Your task to perform on an android device: Look up the best rated wireless earbuds on Ali Express Image 0: 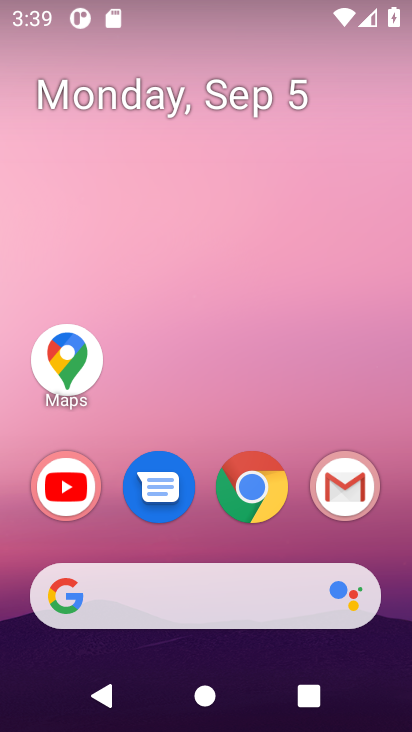
Step 0: click (267, 488)
Your task to perform on an android device: Look up the best rated wireless earbuds on Ali Express Image 1: 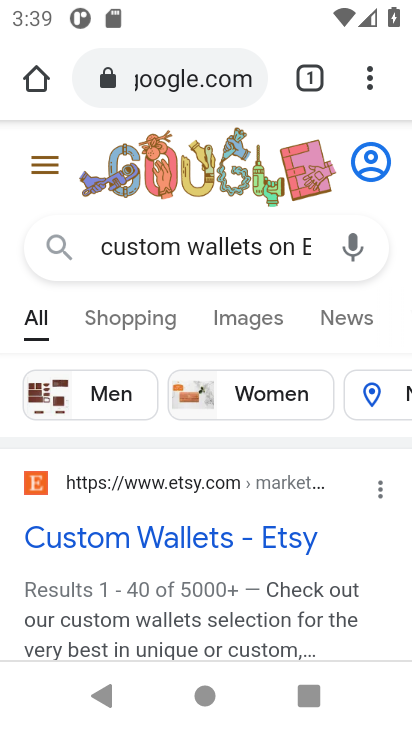
Step 1: click (188, 82)
Your task to perform on an android device: Look up the best rated wireless earbuds on Ali Express Image 2: 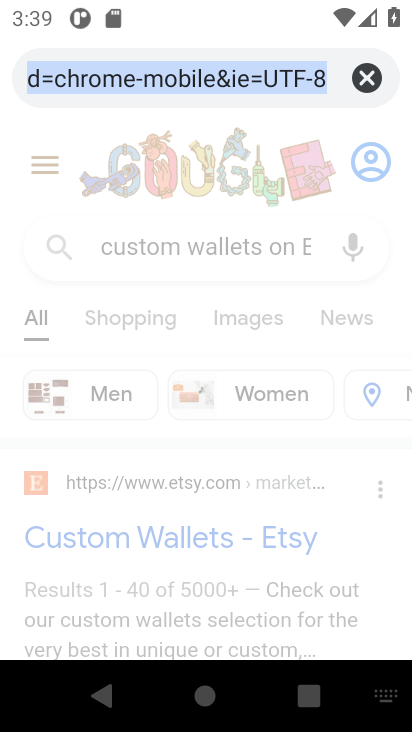
Step 2: click (365, 85)
Your task to perform on an android device: Look up the best rated wireless earbuds on Ali Express Image 3: 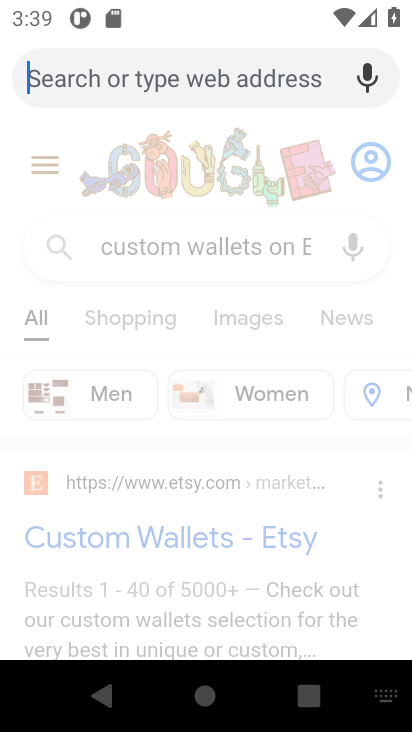
Step 3: type "the best rated wireless earbuds on Ali Express"
Your task to perform on an android device: Look up the best rated wireless earbuds on Ali Express Image 4: 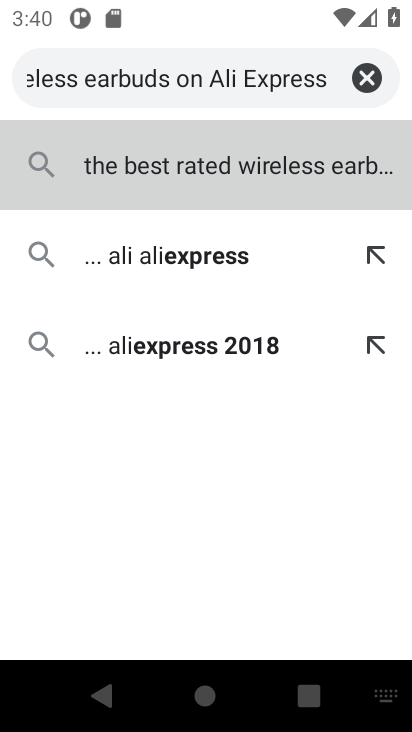
Step 4: click (206, 171)
Your task to perform on an android device: Look up the best rated wireless earbuds on Ali Express Image 5: 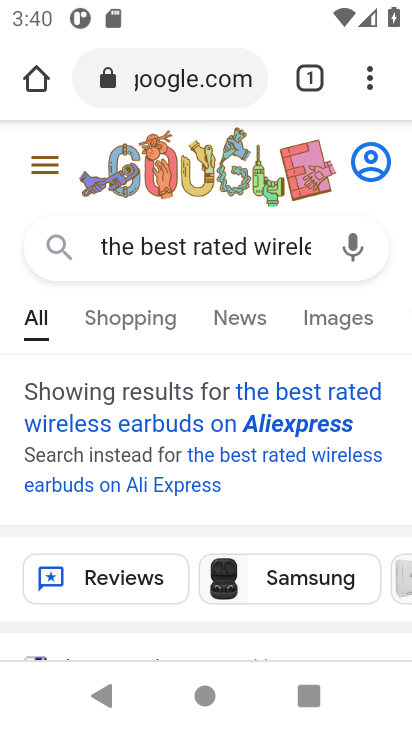
Step 5: task complete